Your task to perform on an android device: turn off location history Image 0: 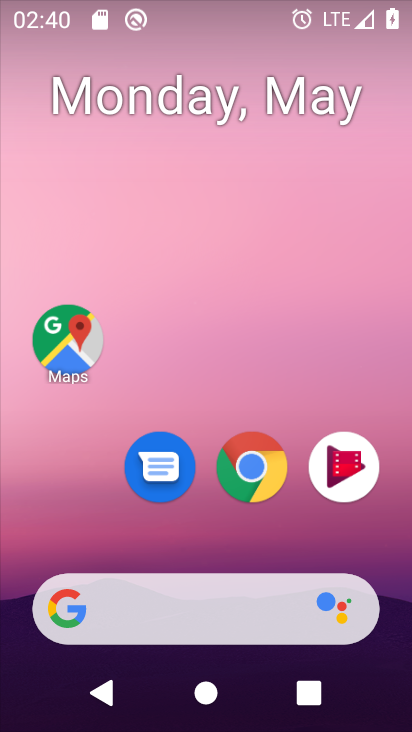
Step 0: drag from (246, 537) to (309, 190)
Your task to perform on an android device: turn off location history Image 1: 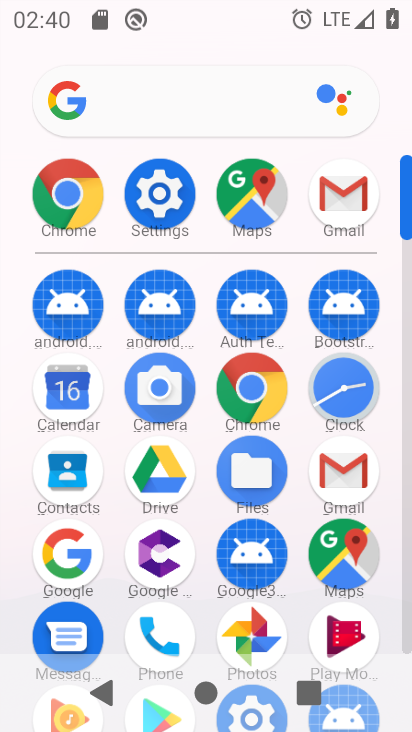
Step 1: click (161, 190)
Your task to perform on an android device: turn off location history Image 2: 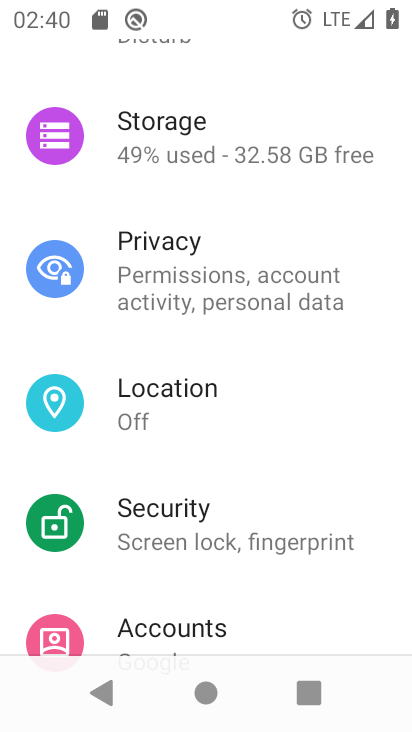
Step 2: click (193, 403)
Your task to perform on an android device: turn off location history Image 3: 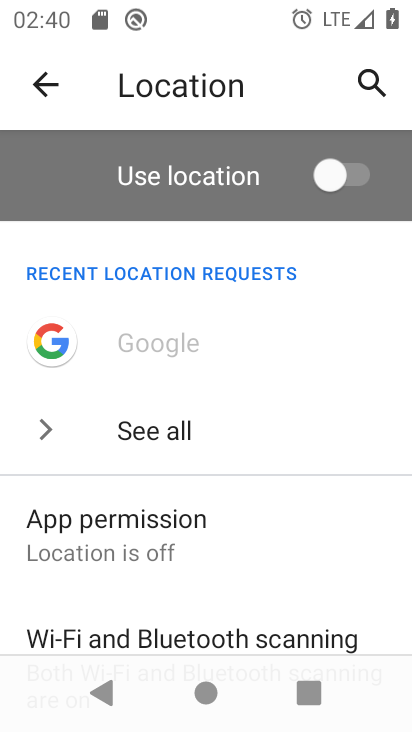
Step 3: drag from (232, 561) to (300, 192)
Your task to perform on an android device: turn off location history Image 4: 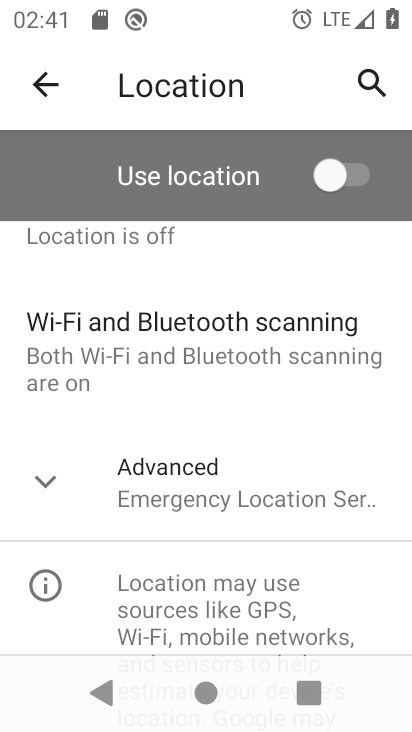
Step 4: drag from (253, 584) to (260, 385)
Your task to perform on an android device: turn off location history Image 5: 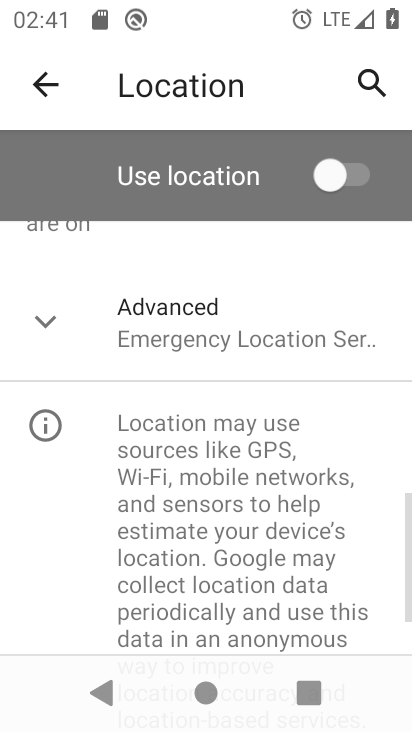
Step 5: click (236, 342)
Your task to perform on an android device: turn off location history Image 6: 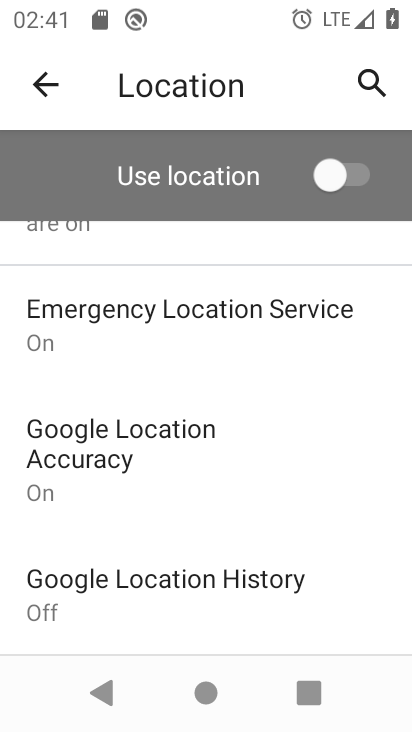
Step 6: click (165, 594)
Your task to perform on an android device: turn off location history Image 7: 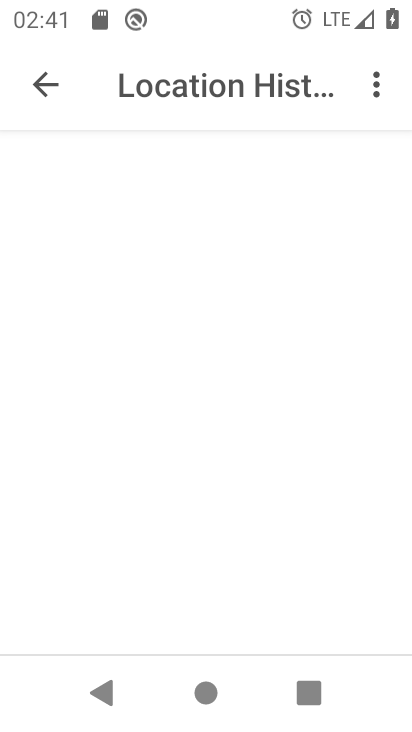
Step 7: task complete